Your task to perform on an android device: Open Amazon Image 0: 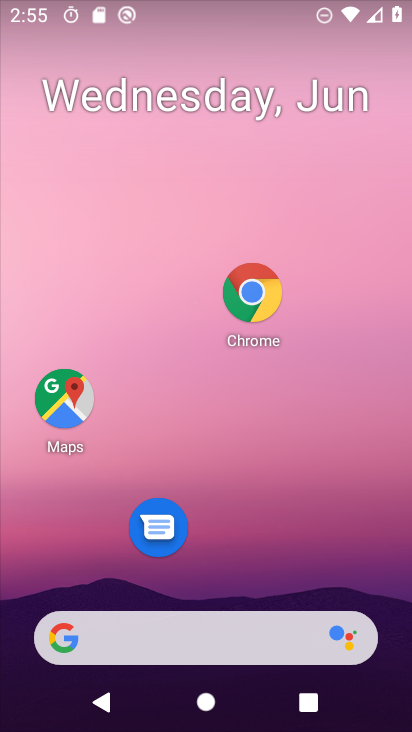
Step 0: drag from (229, 482) to (248, 355)
Your task to perform on an android device: Open Amazon Image 1: 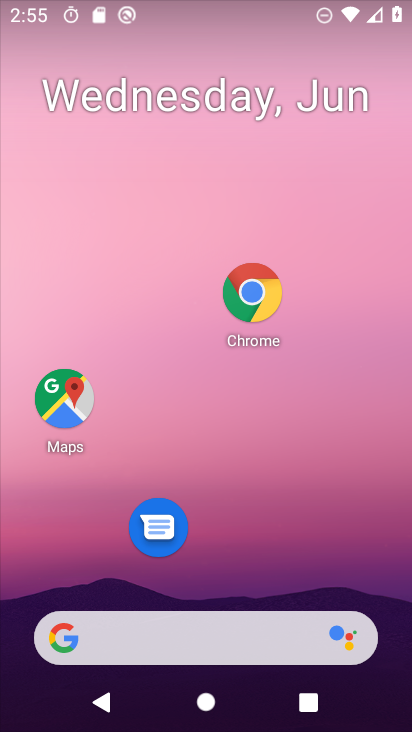
Step 1: click (243, 305)
Your task to perform on an android device: Open Amazon Image 2: 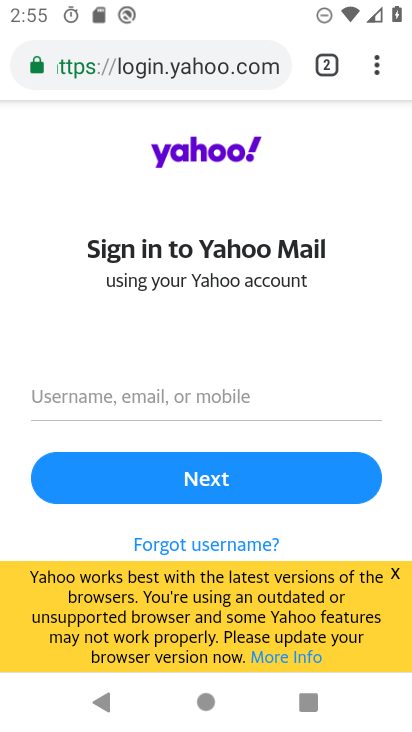
Step 2: click (255, 82)
Your task to perform on an android device: Open Amazon Image 3: 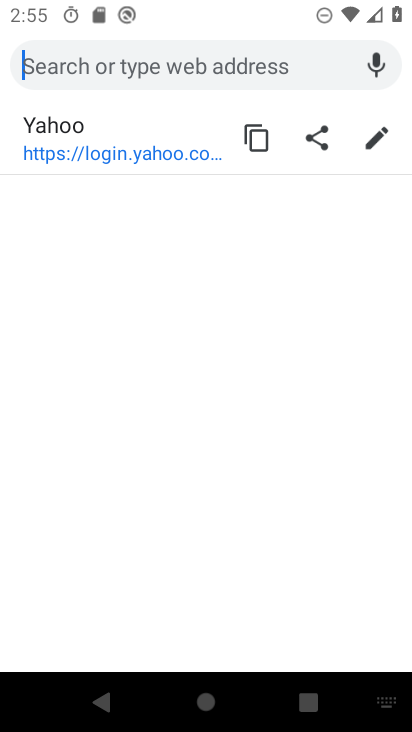
Step 3: type "amazon"
Your task to perform on an android device: Open Amazon Image 4: 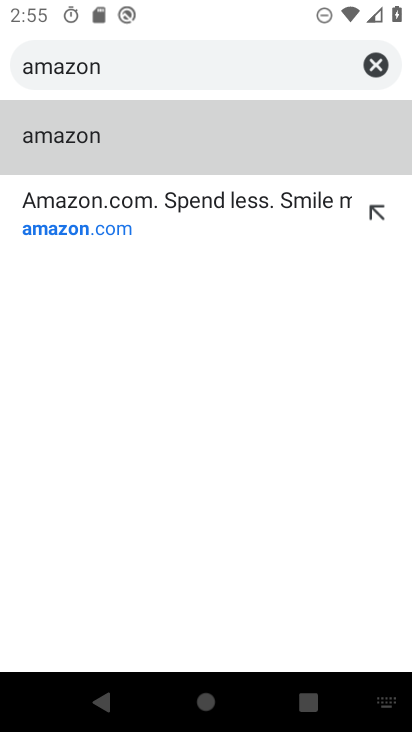
Step 4: click (125, 209)
Your task to perform on an android device: Open Amazon Image 5: 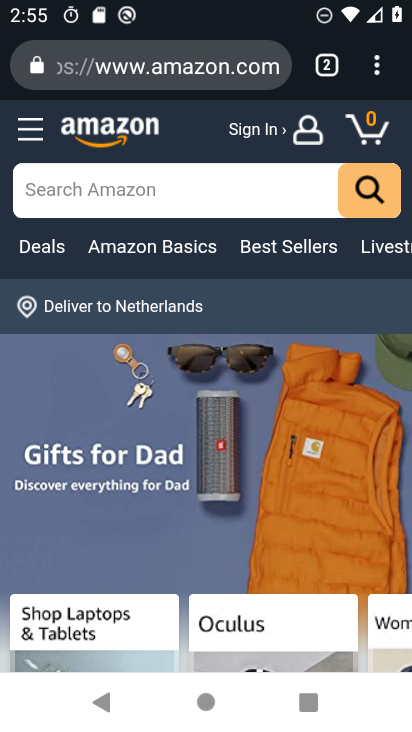
Step 5: task complete